Your task to perform on an android device: turn off picture-in-picture Image 0: 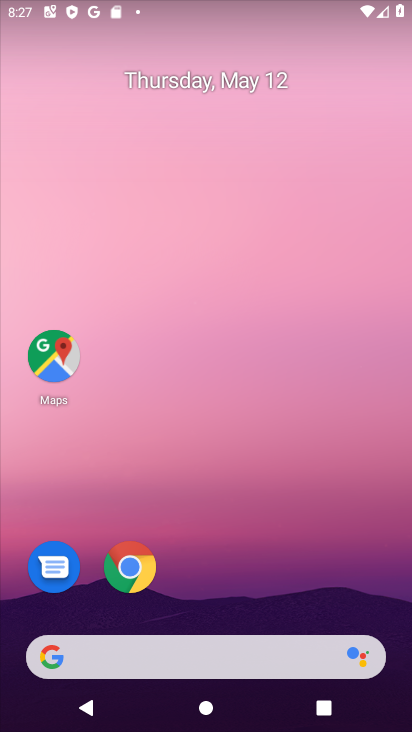
Step 0: drag from (244, 569) to (313, 216)
Your task to perform on an android device: turn off picture-in-picture Image 1: 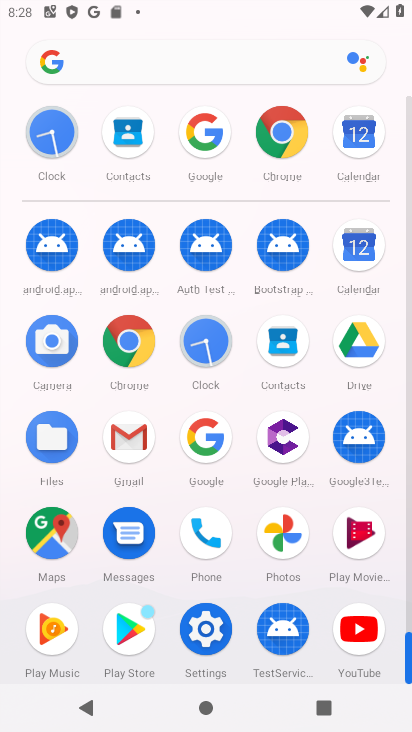
Step 1: drag from (196, 454) to (197, 284)
Your task to perform on an android device: turn off picture-in-picture Image 2: 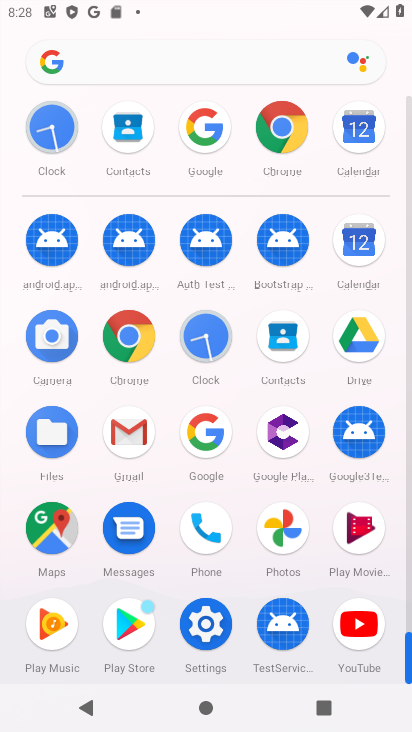
Step 2: click (196, 629)
Your task to perform on an android device: turn off picture-in-picture Image 3: 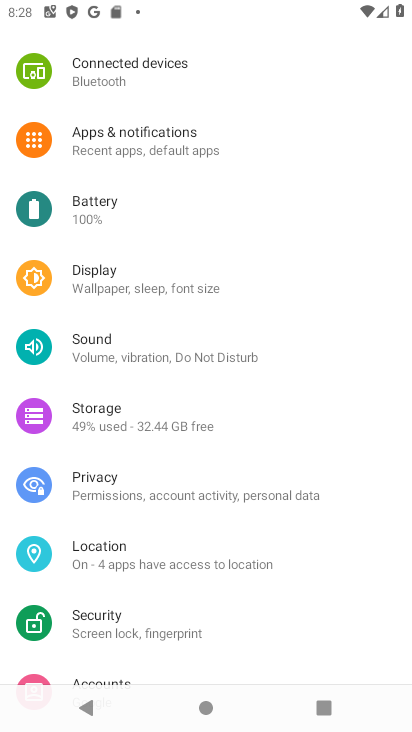
Step 3: click (192, 138)
Your task to perform on an android device: turn off picture-in-picture Image 4: 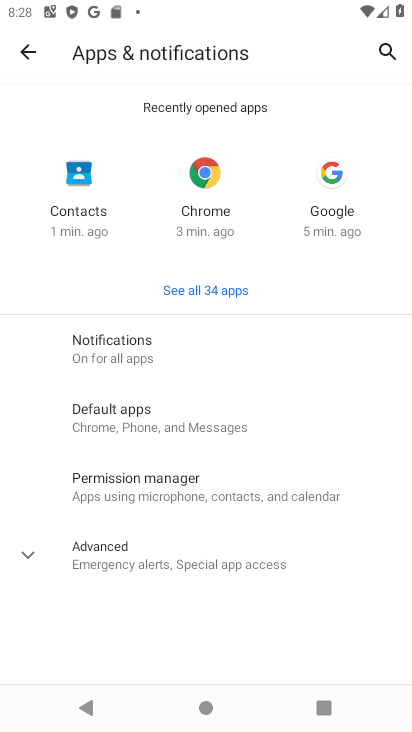
Step 4: click (164, 566)
Your task to perform on an android device: turn off picture-in-picture Image 5: 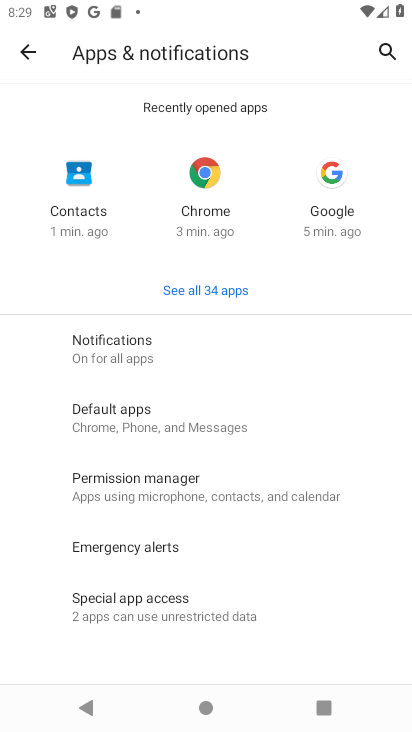
Step 5: drag from (172, 564) to (208, 105)
Your task to perform on an android device: turn off picture-in-picture Image 6: 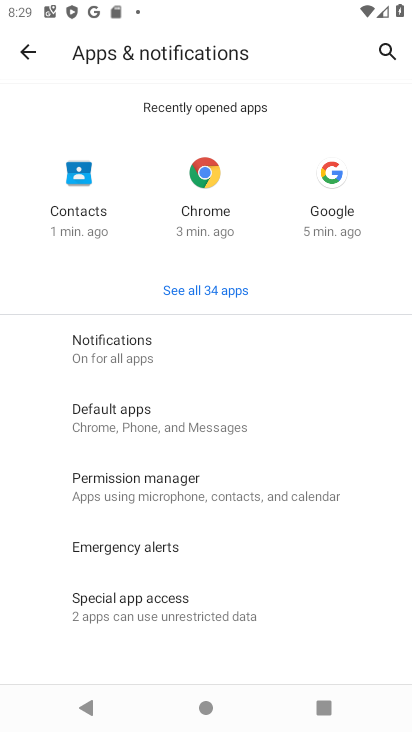
Step 6: click (256, 599)
Your task to perform on an android device: turn off picture-in-picture Image 7: 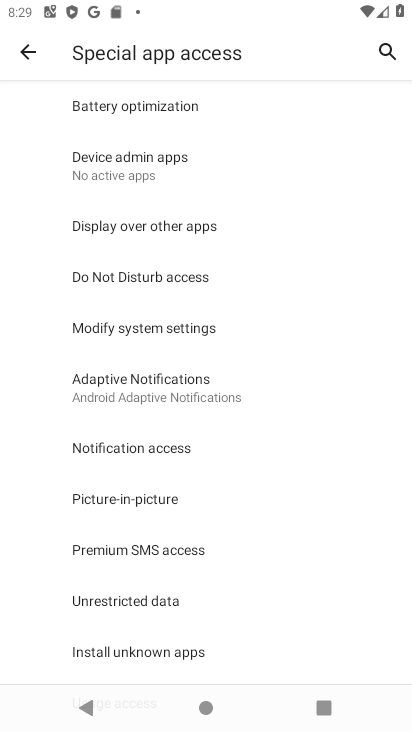
Step 7: drag from (207, 552) to (197, 201)
Your task to perform on an android device: turn off picture-in-picture Image 8: 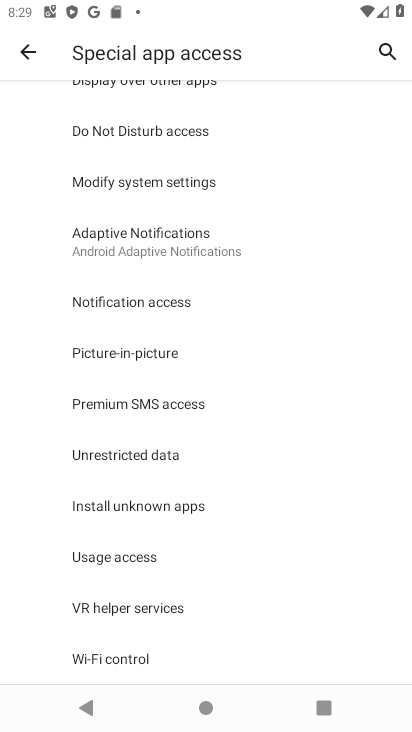
Step 8: click (170, 346)
Your task to perform on an android device: turn off picture-in-picture Image 9: 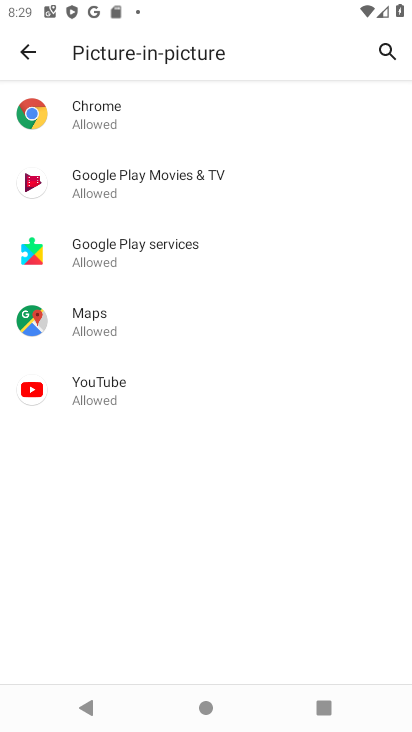
Step 9: click (209, 132)
Your task to perform on an android device: turn off picture-in-picture Image 10: 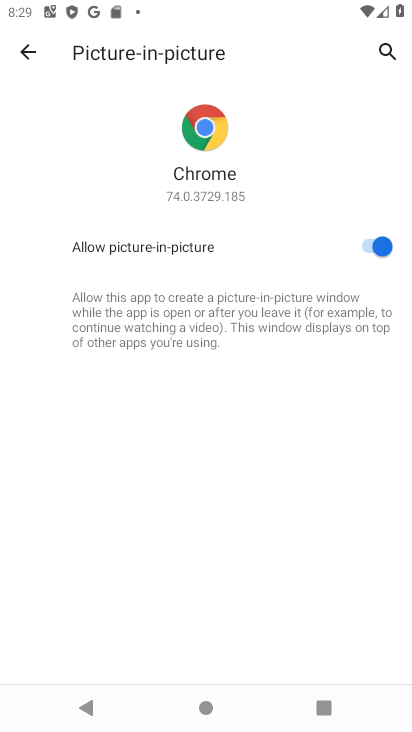
Step 10: click (373, 249)
Your task to perform on an android device: turn off picture-in-picture Image 11: 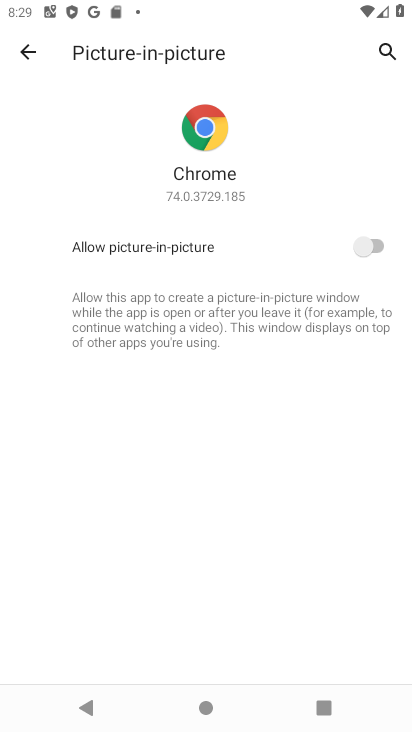
Step 11: task complete